Your task to perform on an android device: Search for usb-b on target, select the first entry, and add it to the cart. Image 0: 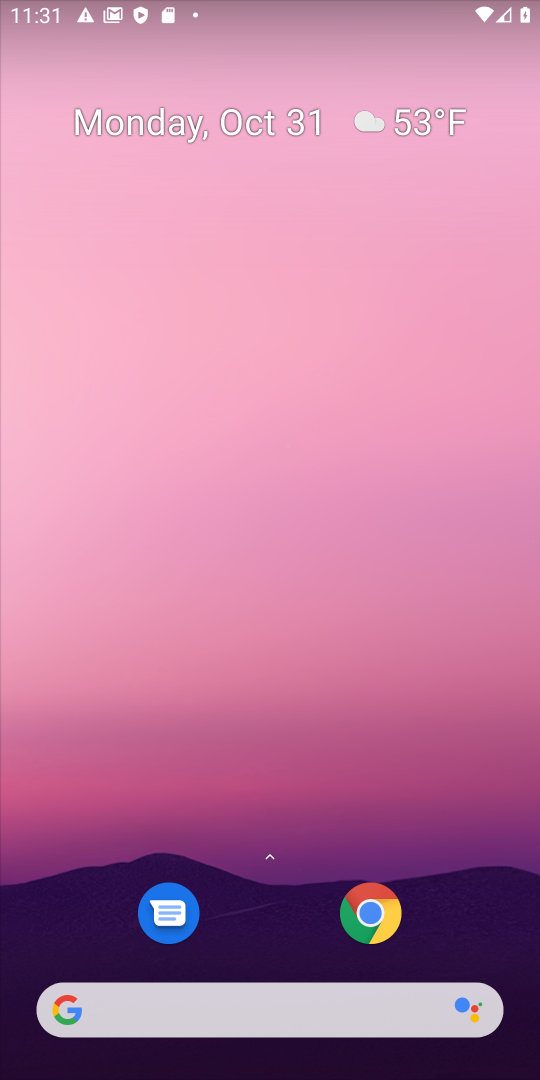
Step 0: task complete